Your task to perform on an android device: Show me the alarms in the clock app Image 0: 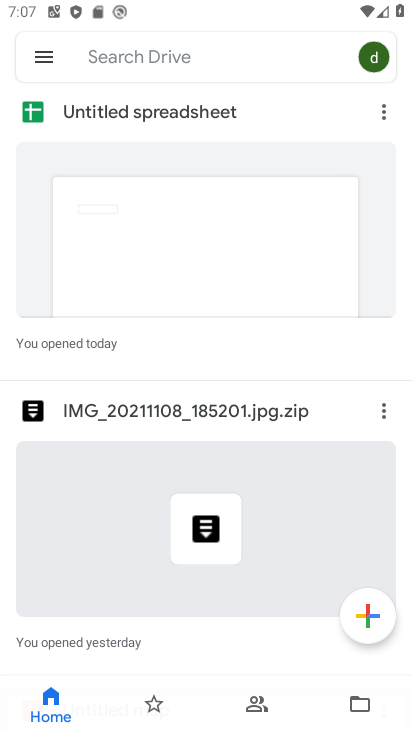
Step 0: press home button
Your task to perform on an android device: Show me the alarms in the clock app Image 1: 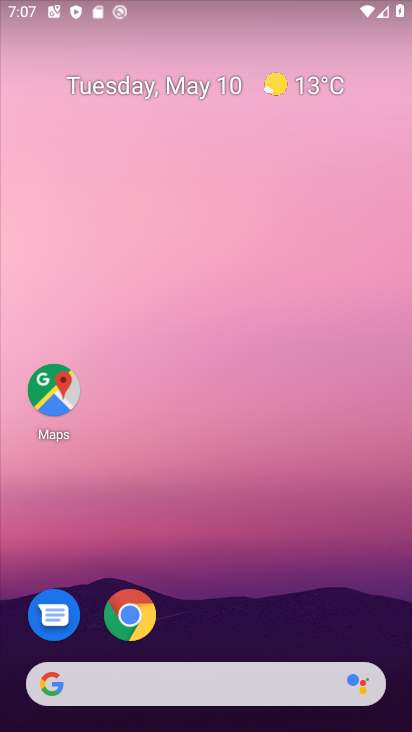
Step 1: drag from (219, 546) to (287, 32)
Your task to perform on an android device: Show me the alarms in the clock app Image 2: 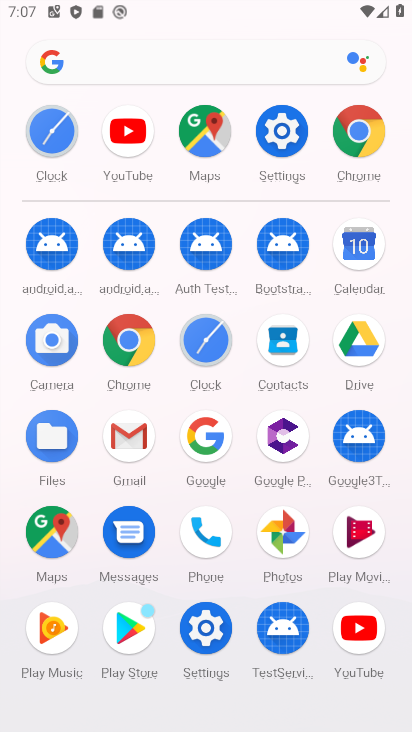
Step 2: click (217, 354)
Your task to perform on an android device: Show me the alarms in the clock app Image 3: 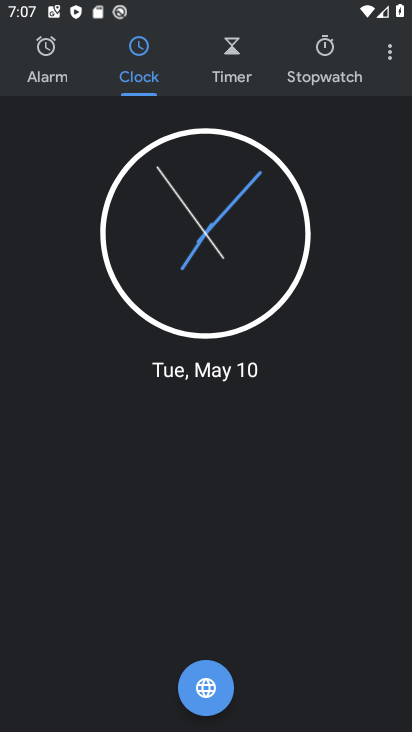
Step 3: click (55, 84)
Your task to perform on an android device: Show me the alarms in the clock app Image 4: 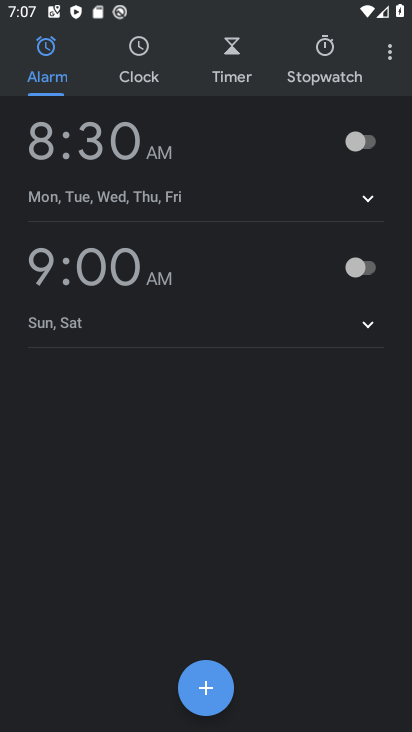
Step 4: click (79, 146)
Your task to perform on an android device: Show me the alarms in the clock app Image 5: 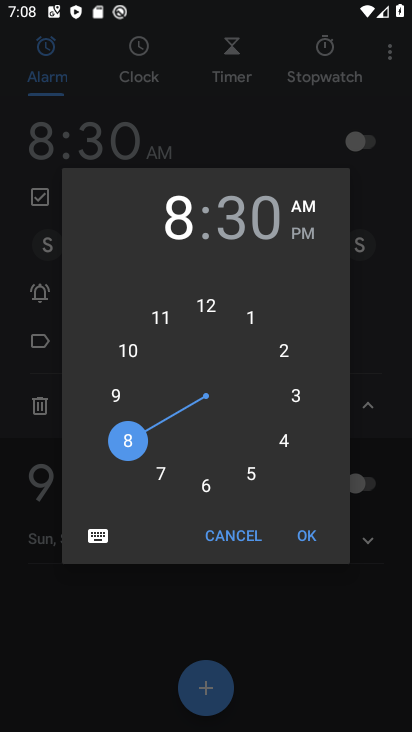
Step 5: task complete